Your task to perform on an android device: check battery use Image 0: 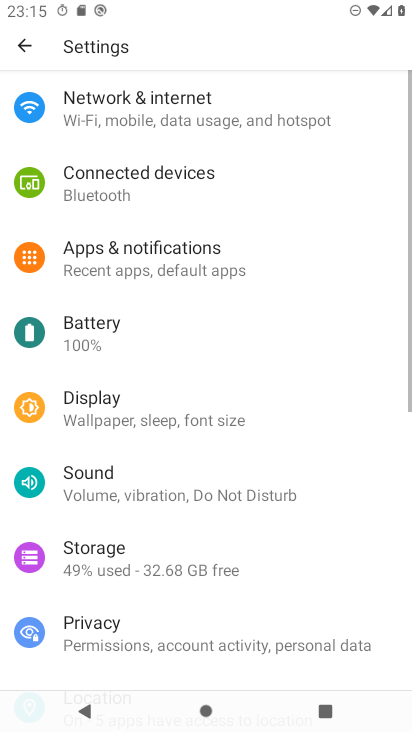
Step 0: drag from (317, 434) to (326, 363)
Your task to perform on an android device: check battery use Image 1: 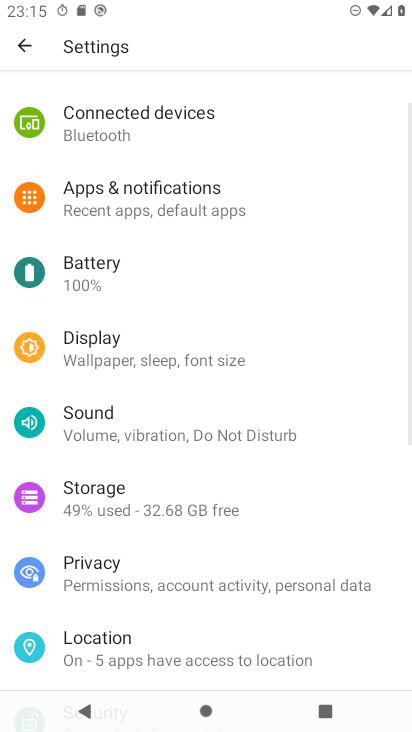
Step 1: drag from (334, 430) to (338, 343)
Your task to perform on an android device: check battery use Image 2: 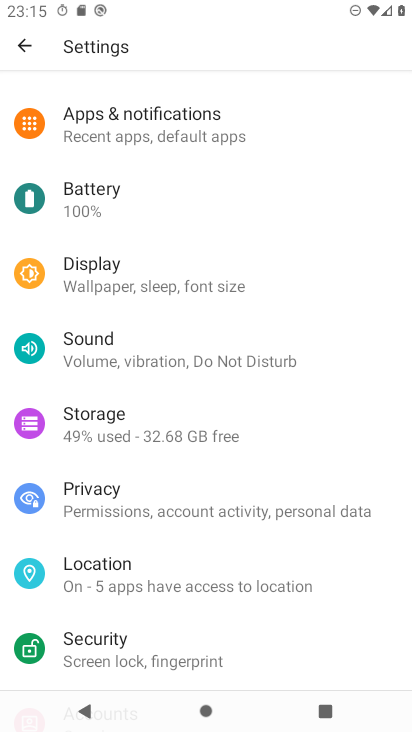
Step 2: drag from (340, 391) to (348, 312)
Your task to perform on an android device: check battery use Image 3: 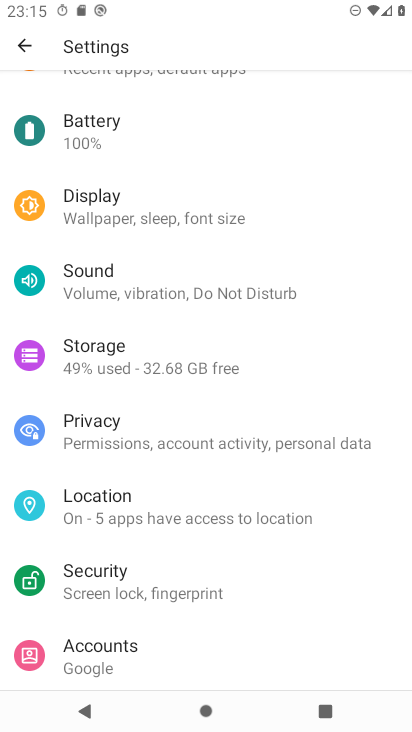
Step 3: drag from (357, 376) to (366, 297)
Your task to perform on an android device: check battery use Image 4: 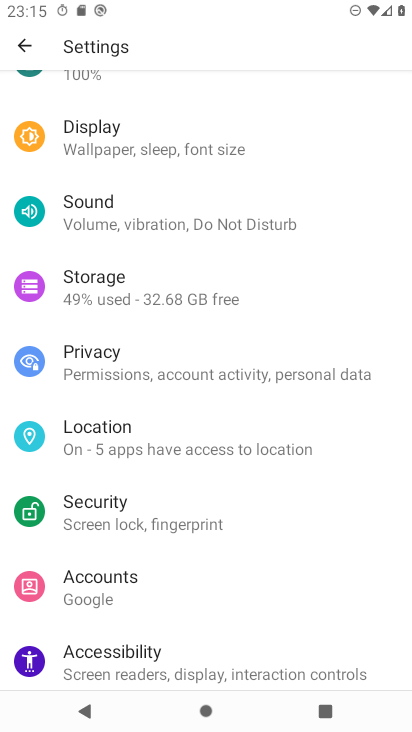
Step 4: drag from (366, 392) to (374, 326)
Your task to perform on an android device: check battery use Image 5: 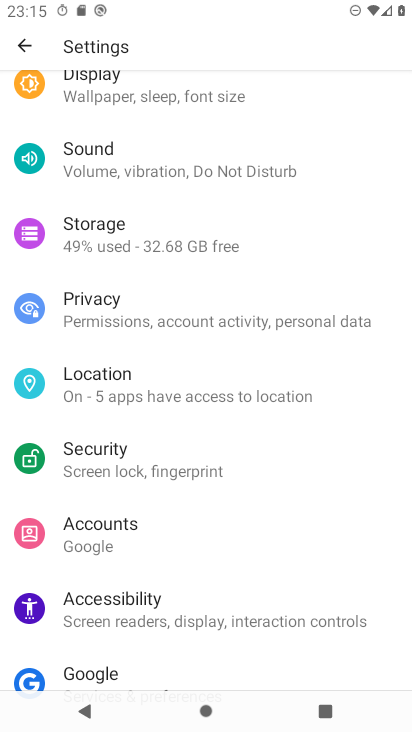
Step 5: drag from (361, 415) to (364, 336)
Your task to perform on an android device: check battery use Image 6: 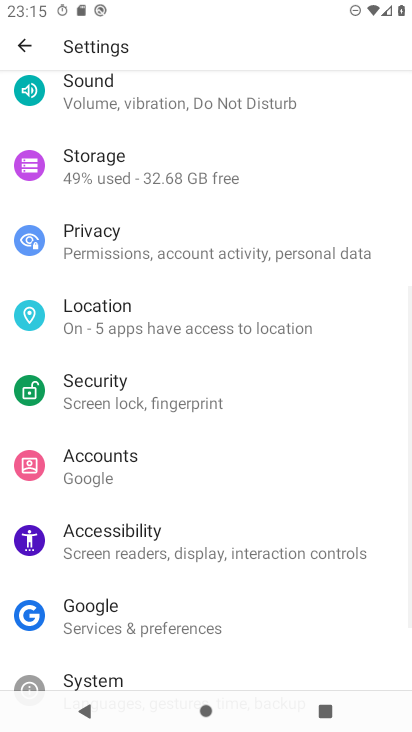
Step 6: drag from (348, 439) to (373, 263)
Your task to perform on an android device: check battery use Image 7: 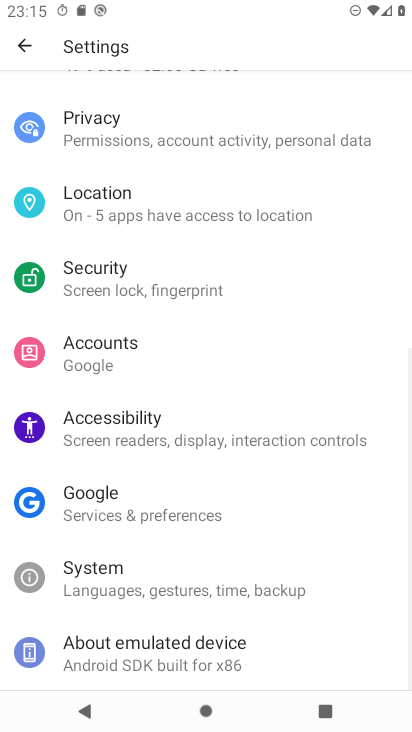
Step 7: drag from (373, 257) to (375, 339)
Your task to perform on an android device: check battery use Image 8: 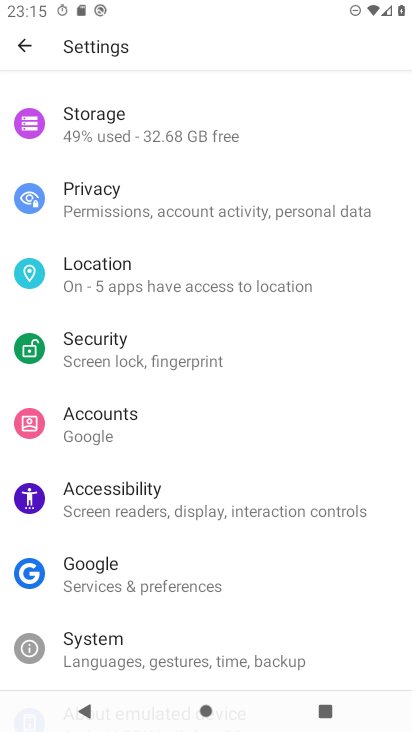
Step 8: drag from (366, 264) to (362, 340)
Your task to perform on an android device: check battery use Image 9: 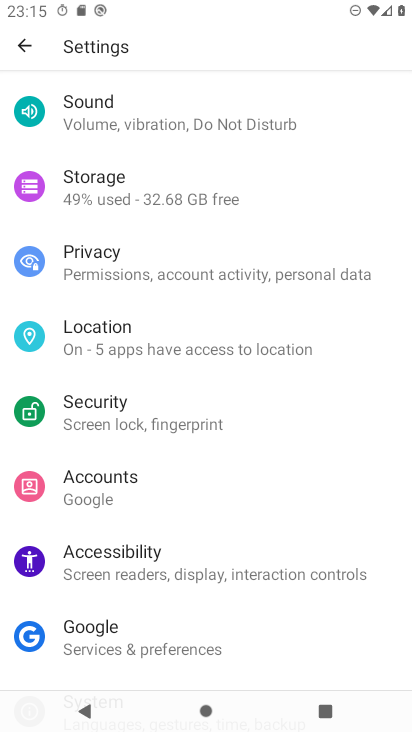
Step 9: drag from (357, 259) to (357, 362)
Your task to perform on an android device: check battery use Image 10: 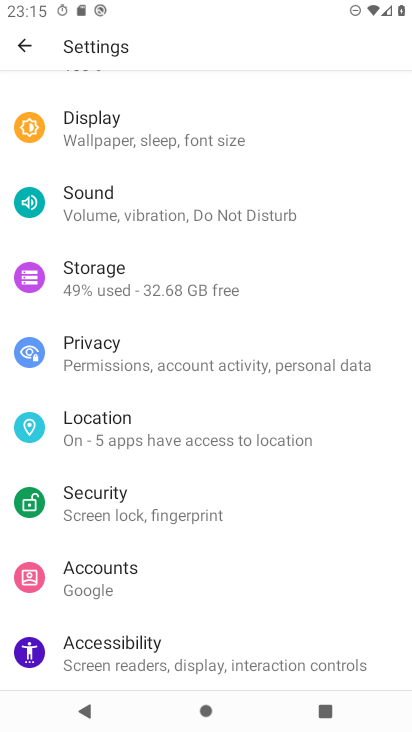
Step 10: drag from (354, 277) to (352, 388)
Your task to perform on an android device: check battery use Image 11: 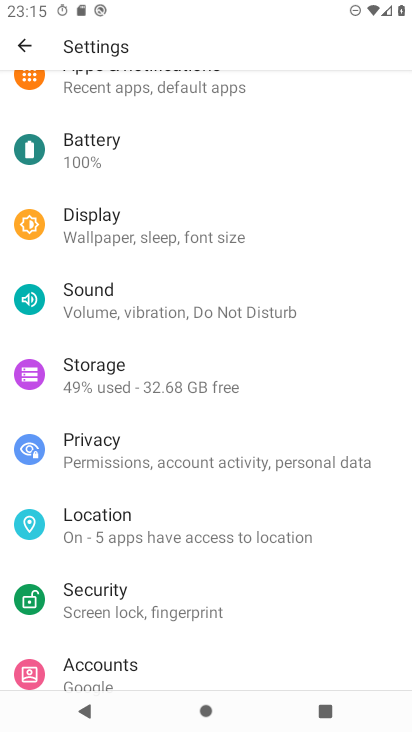
Step 11: drag from (351, 262) to (349, 412)
Your task to perform on an android device: check battery use Image 12: 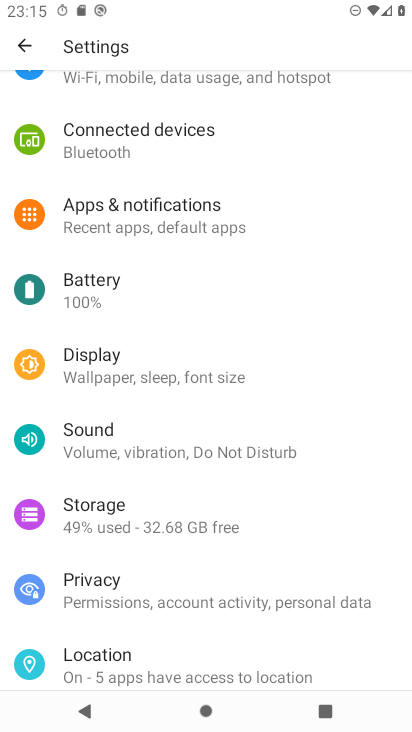
Step 12: drag from (345, 332) to (347, 466)
Your task to perform on an android device: check battery use Image 13: 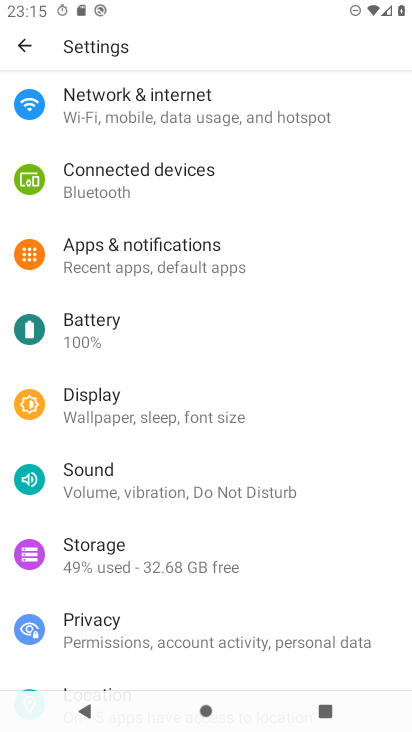
Step 13: click (201, 339)
Your task to perform on an android device: check battery use Image 14: 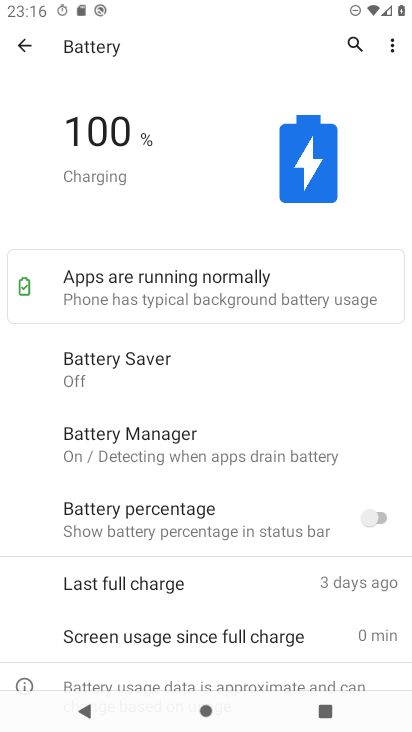
Step 14: click (392, 53)
Your task to perform on an android device: check battery use Image 15: 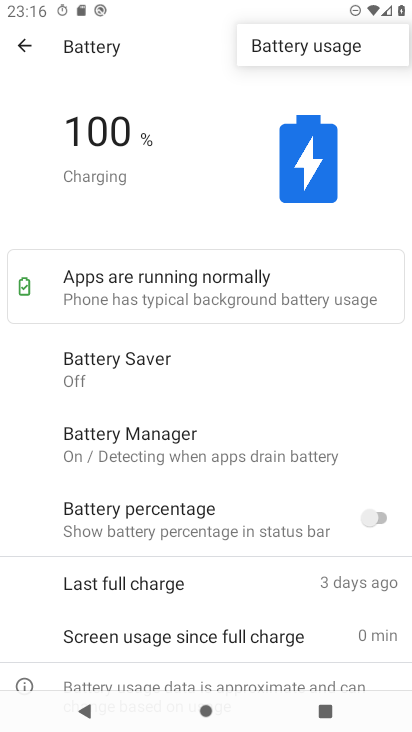
Step 15: click (352, 52)
Your task to perform on an android device: check battery use Image 16: 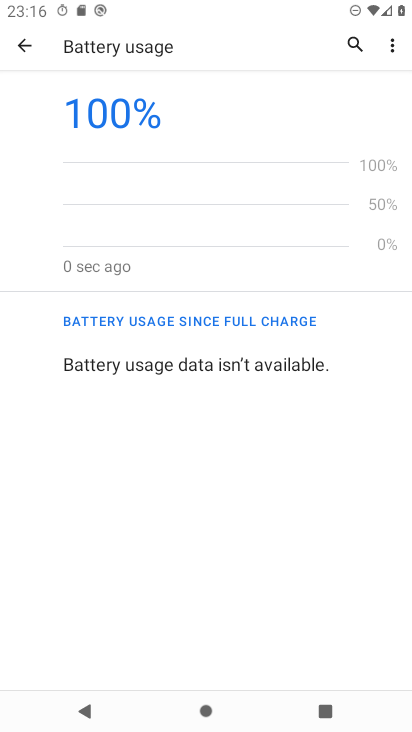
Step 16: task complete